Your task to perform on an android device: change the clock display to show seconds Image 0: 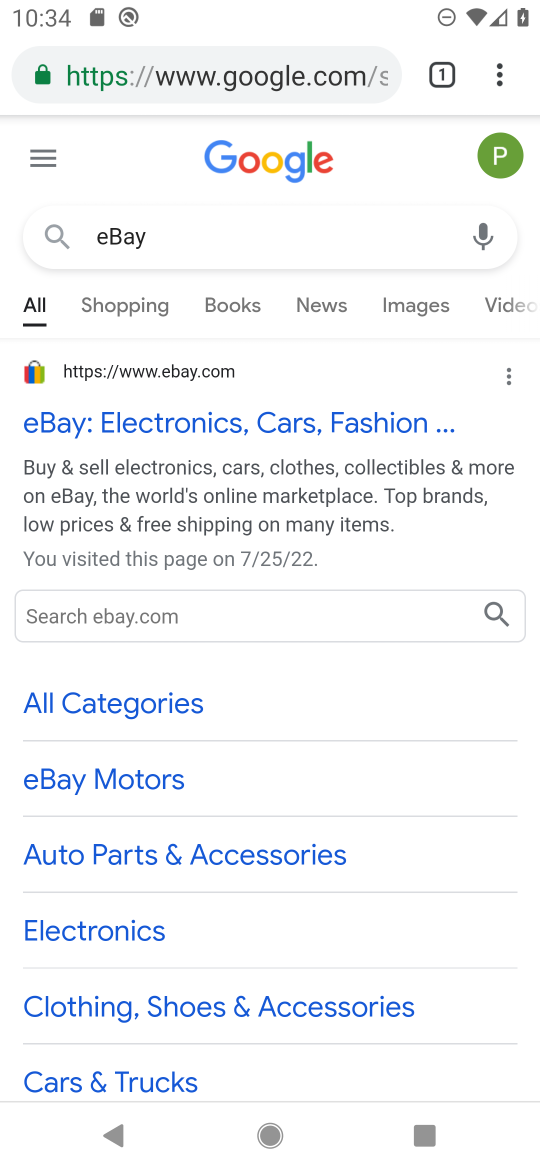
Step 0: press home button
Your task to perform on an android device: change the clock display to show seconds Image 1: 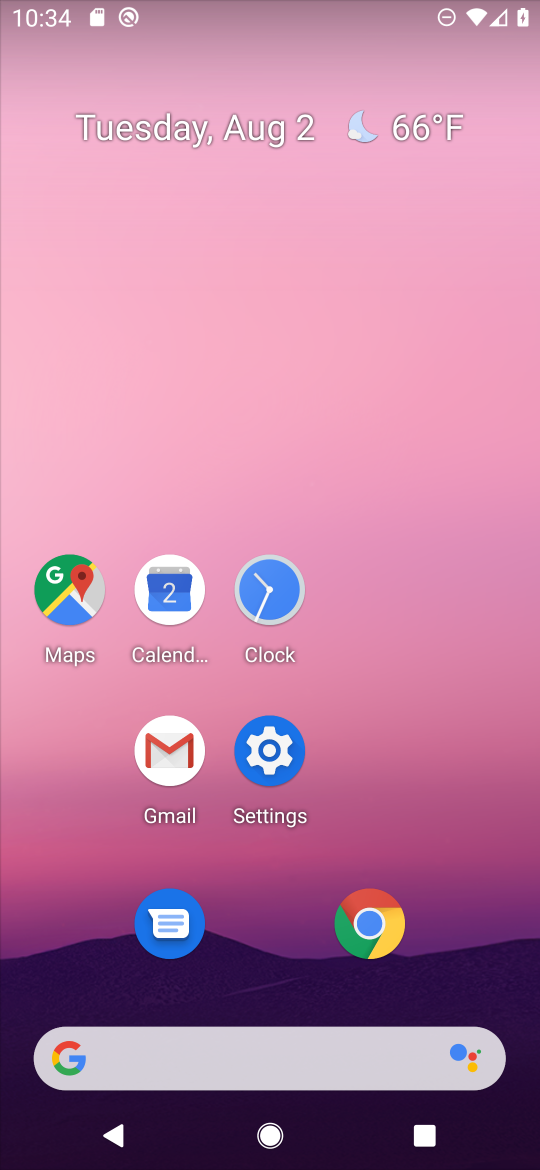
Step 1: click (270, 594)
Your task to perform on an android device: change the clock display to show seconds Image 2: 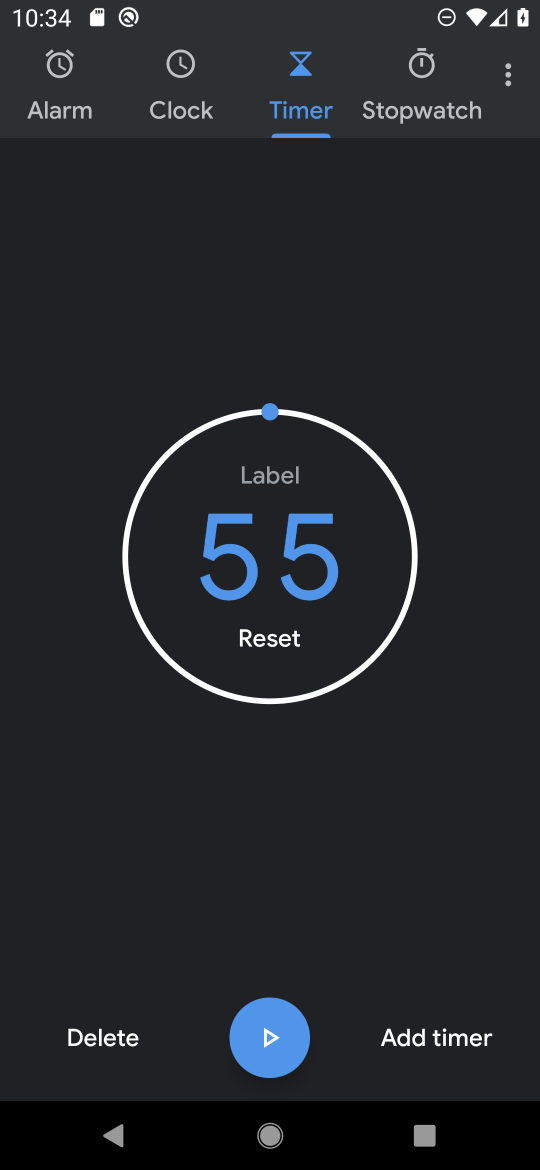
Step 2: click (512, 72)
Your task to perform on an android device: change the clock display to show seconds Image 3: 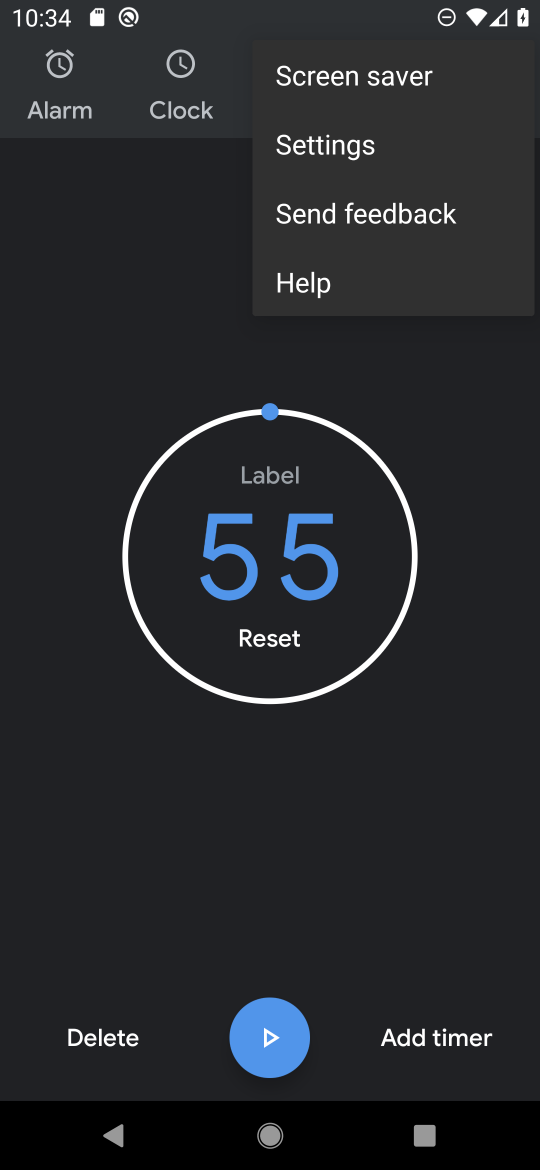
Step 3: click (363, 143)
Your task to perform on an android device: change the clock display to show seconds Image 4: 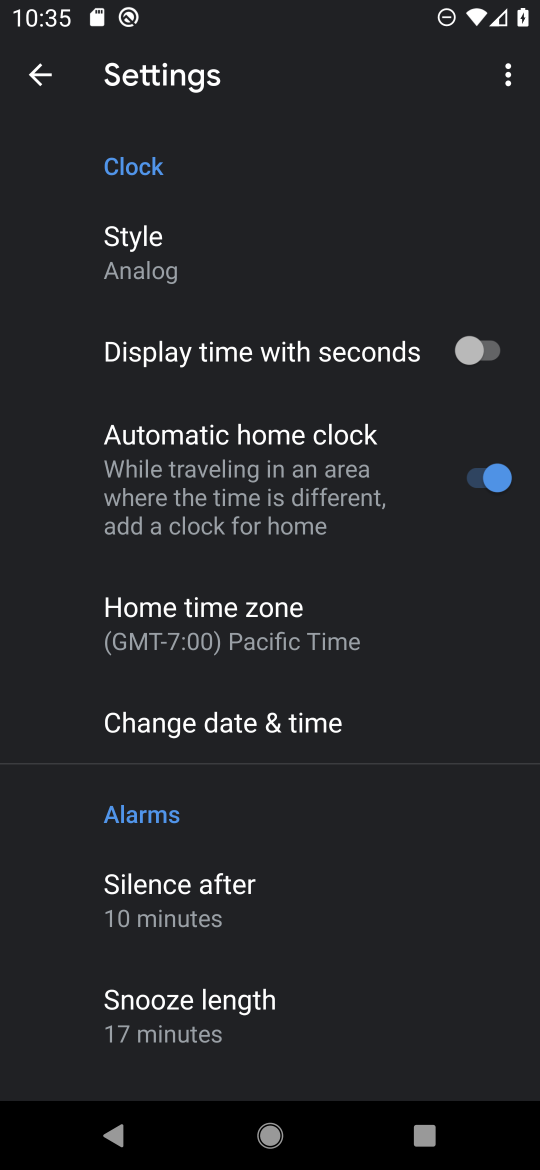
Step 4: click (477, 350)
Your task to perform on an android device: change the clock display to show seconds Image 5: 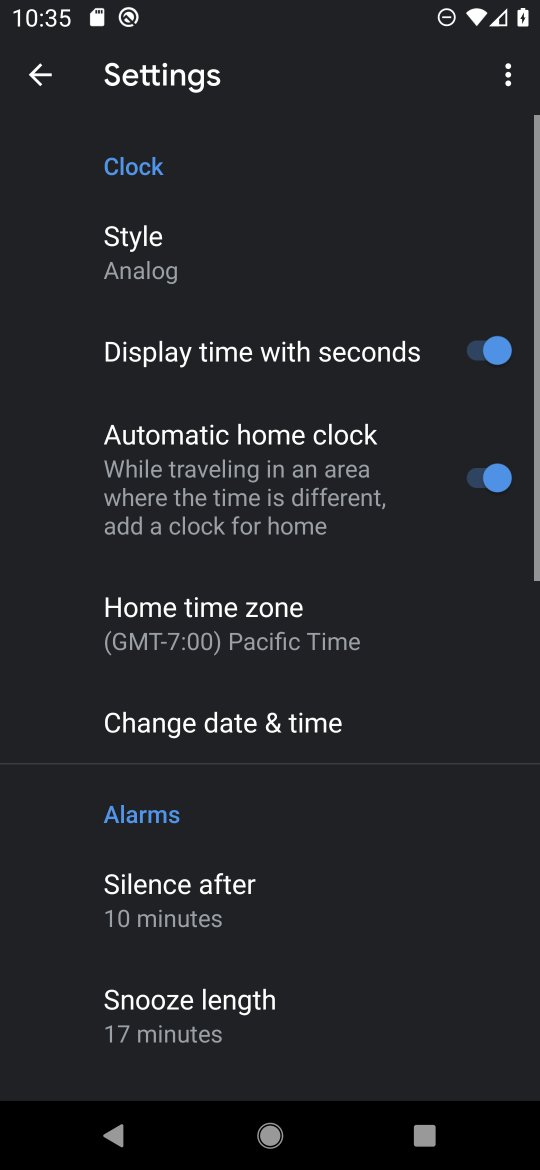
Step 5: task complete